Your task to perform on an android device: toggle translation in the chrome app Image 0: 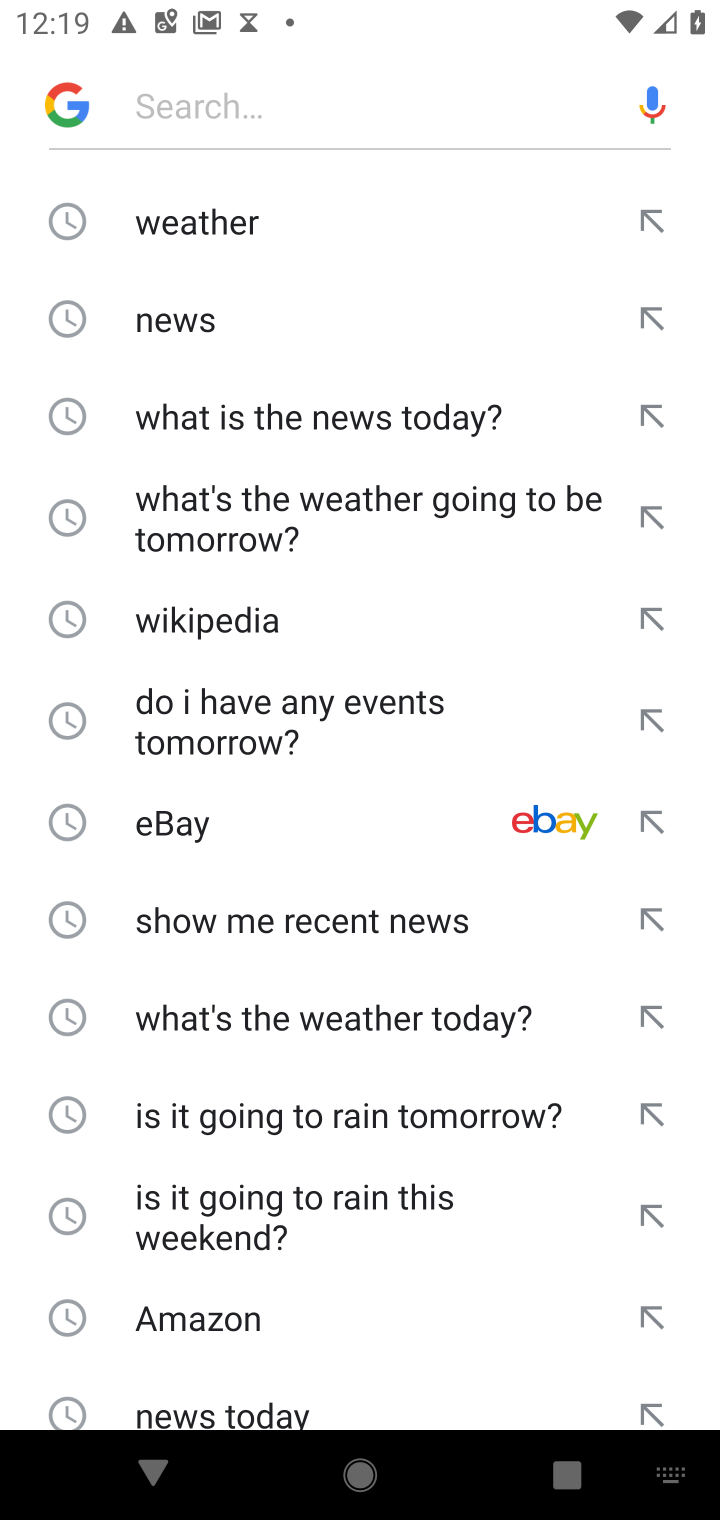
Step 0: press home button
Your task to perform on an android device: toggle translation in the chrome app Image 1: 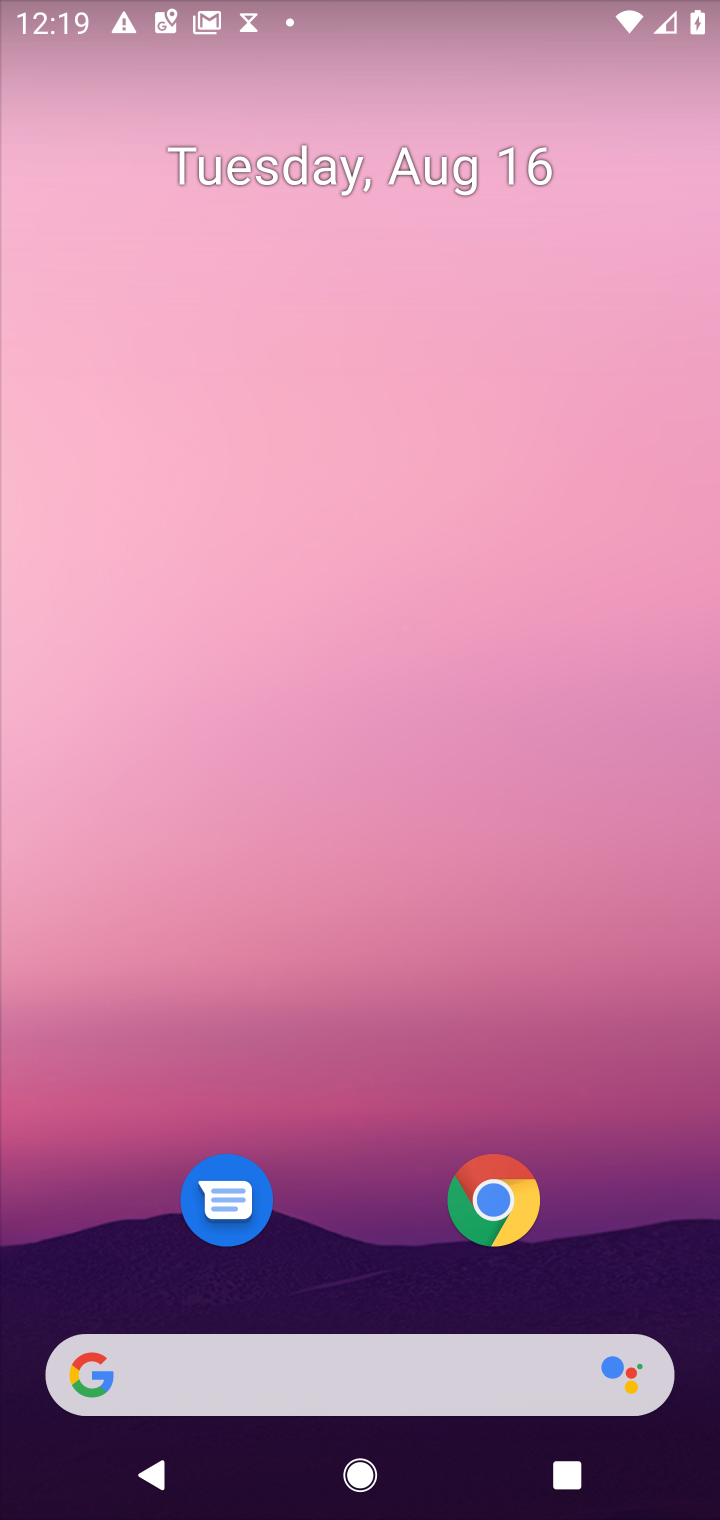
Step 1: click (476, 1223)
Your task to perform on an android device: toggle translation in the chrome app Image 2: 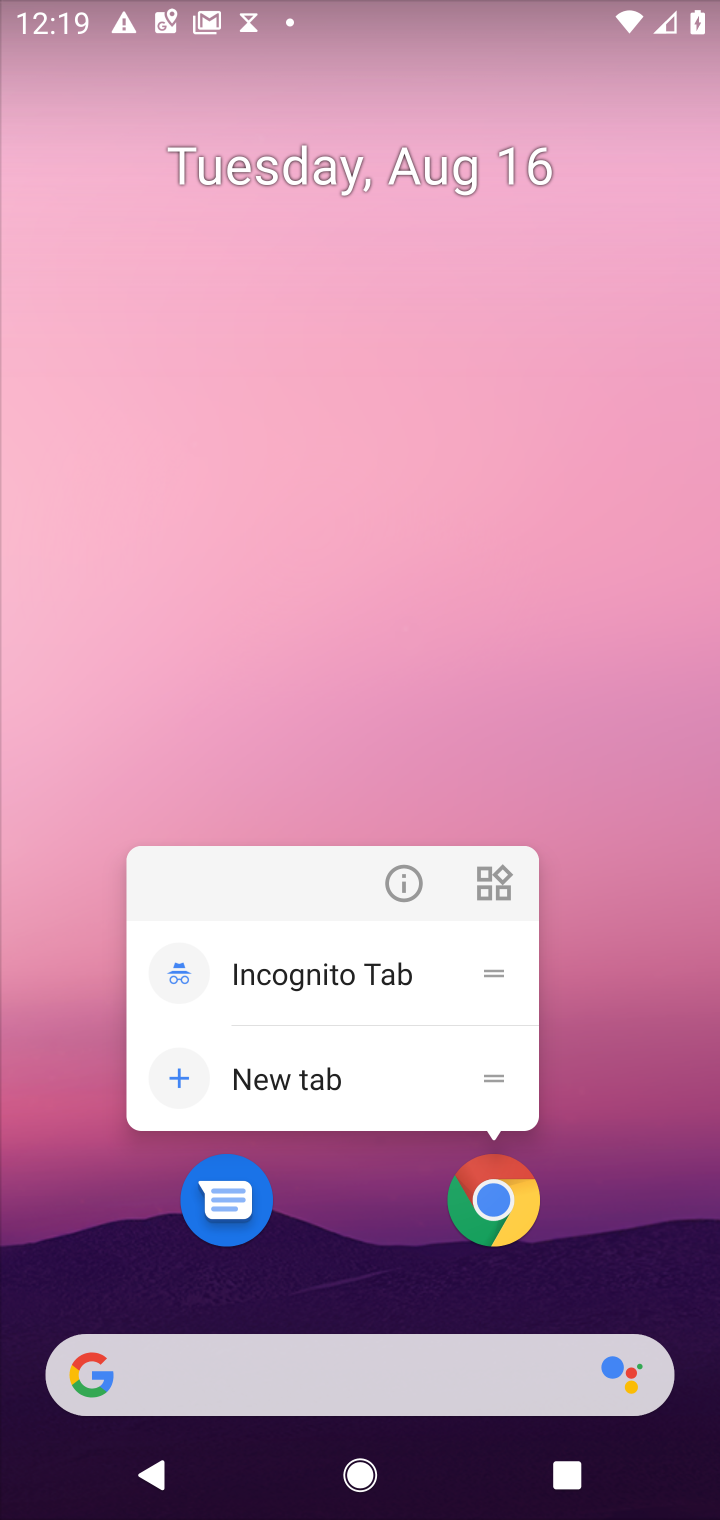
Step 2: click (528, 1184)
Your task to perform on an android device: toggle translation in the chrome app Image 3: 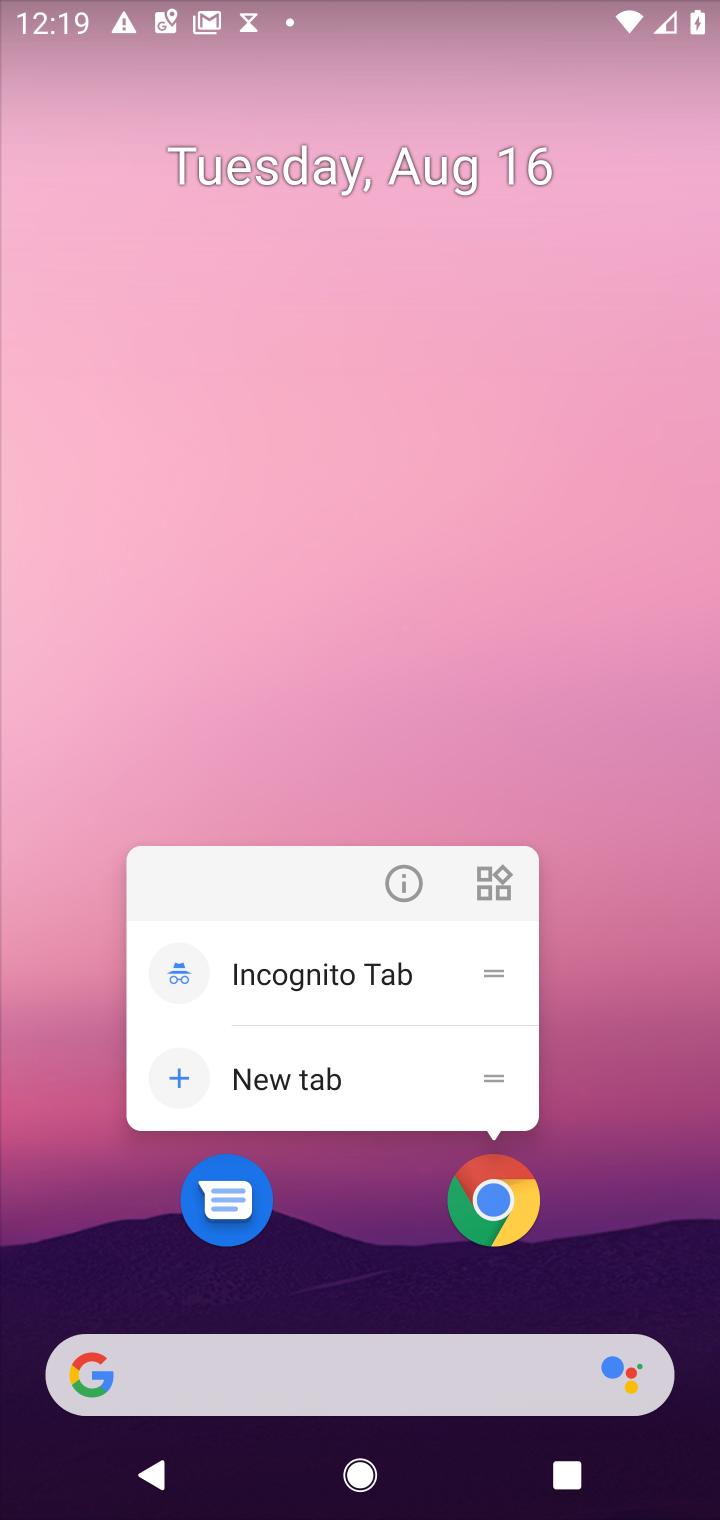
Step 3: click (483, 1207)
Your task to perform on an android device: toggle translation in the chrome app Image 4: 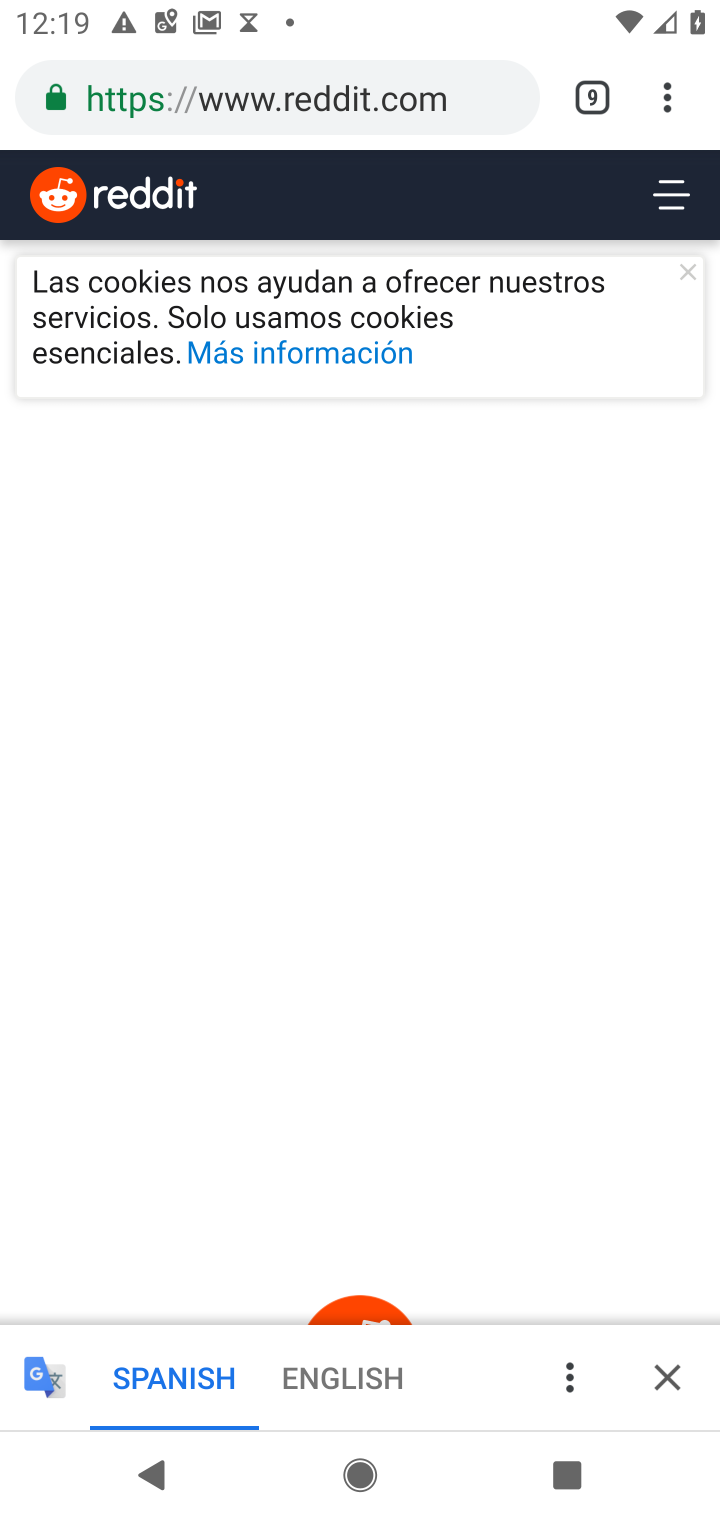
Step 4: click (652, 77)
Your task to perform on an android device: toggle translation in the chrome app Image 5: 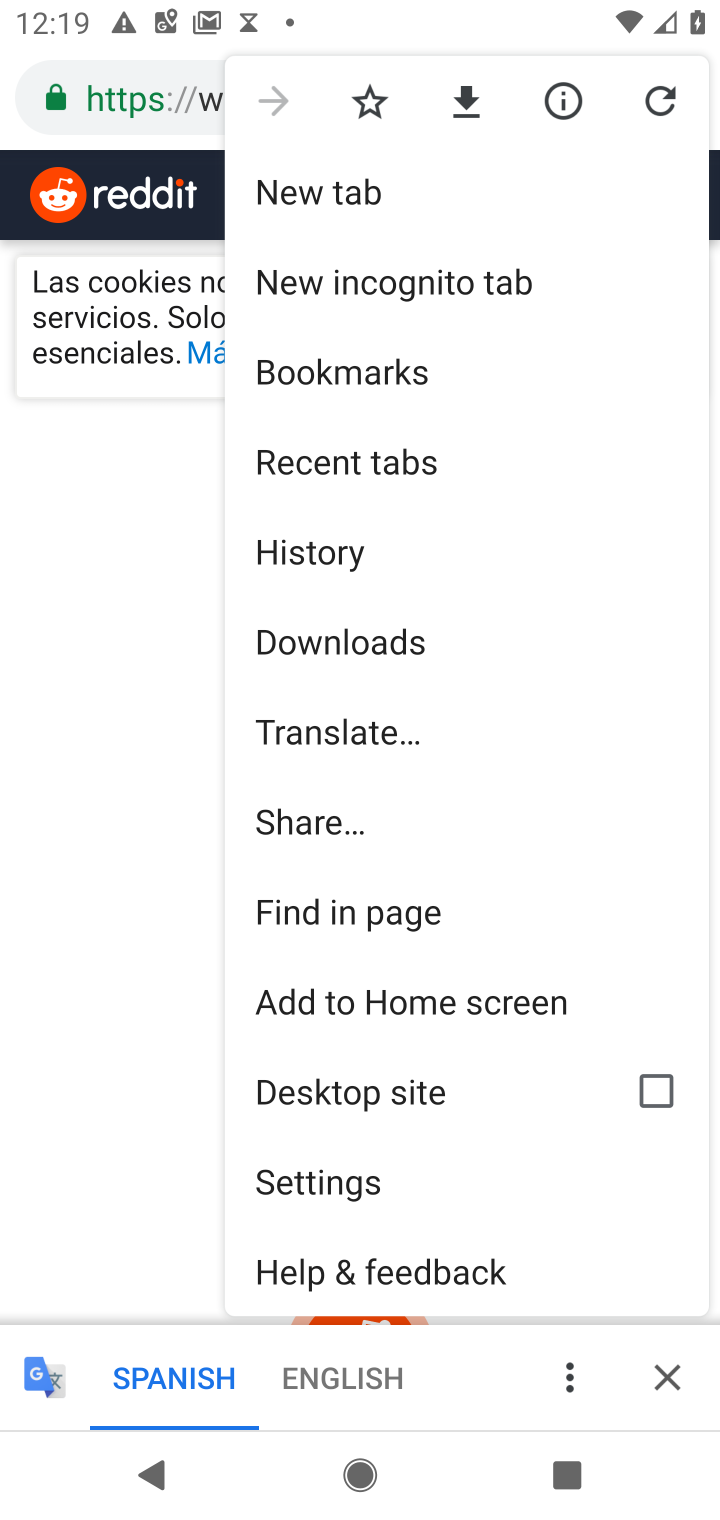
Step 5: click (364, 1174)
Your task to perform on an android device: toggle translation in the chrome app Image 6: 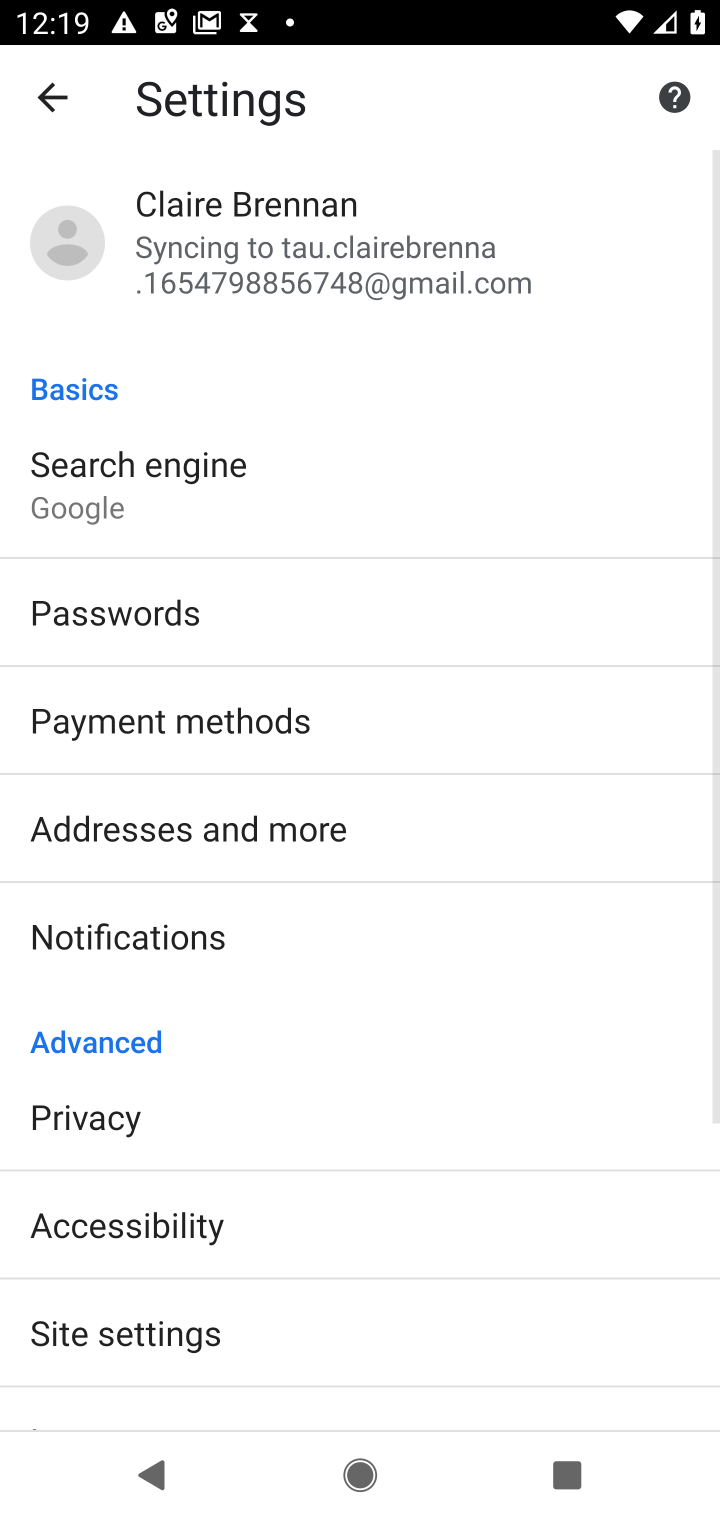
Step 6: drag from (296, 1204) to (304, 527)
Your task to perform on an android device: toggle translation in the chrome app Image 7: 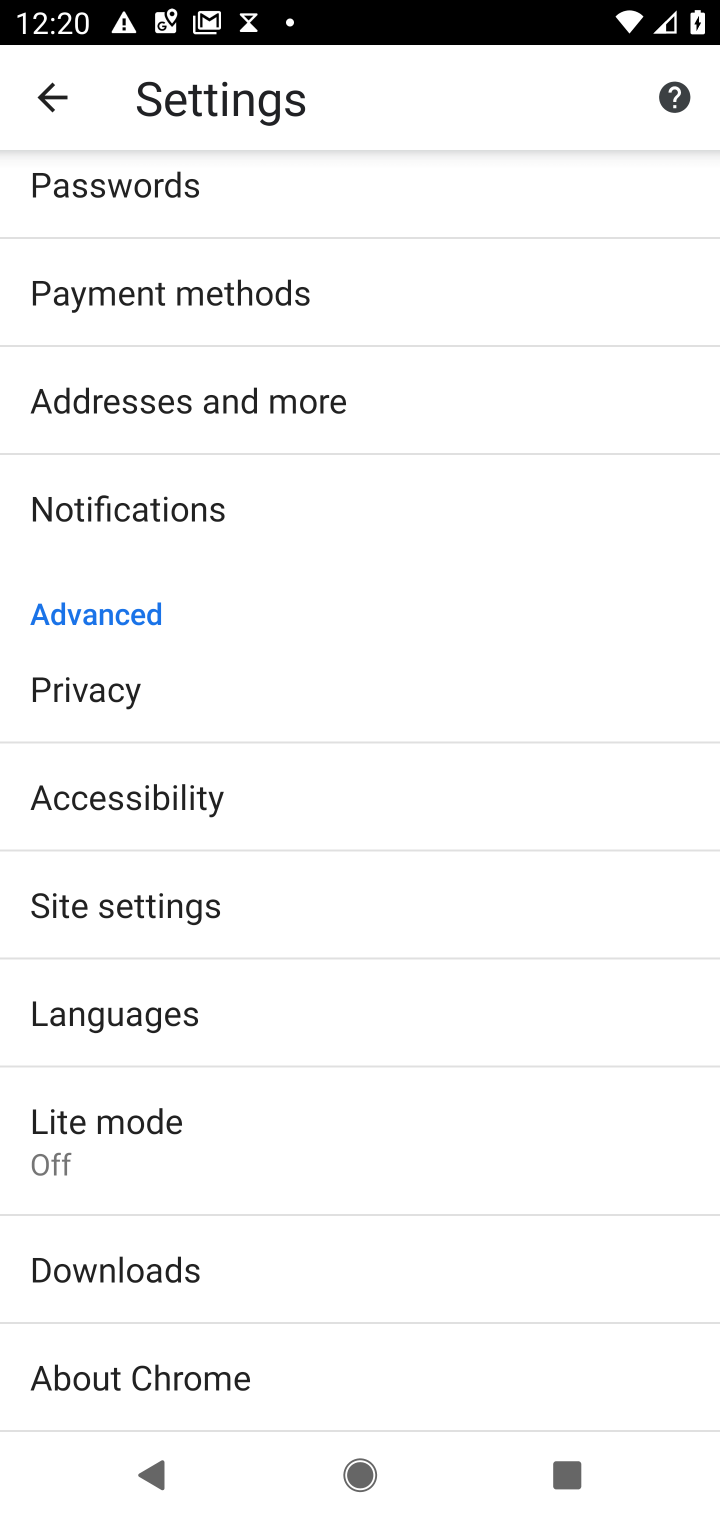
Step 7: click (214, 994)
Your task to perform on an android device: toggle translation in the chrome app Image 8: 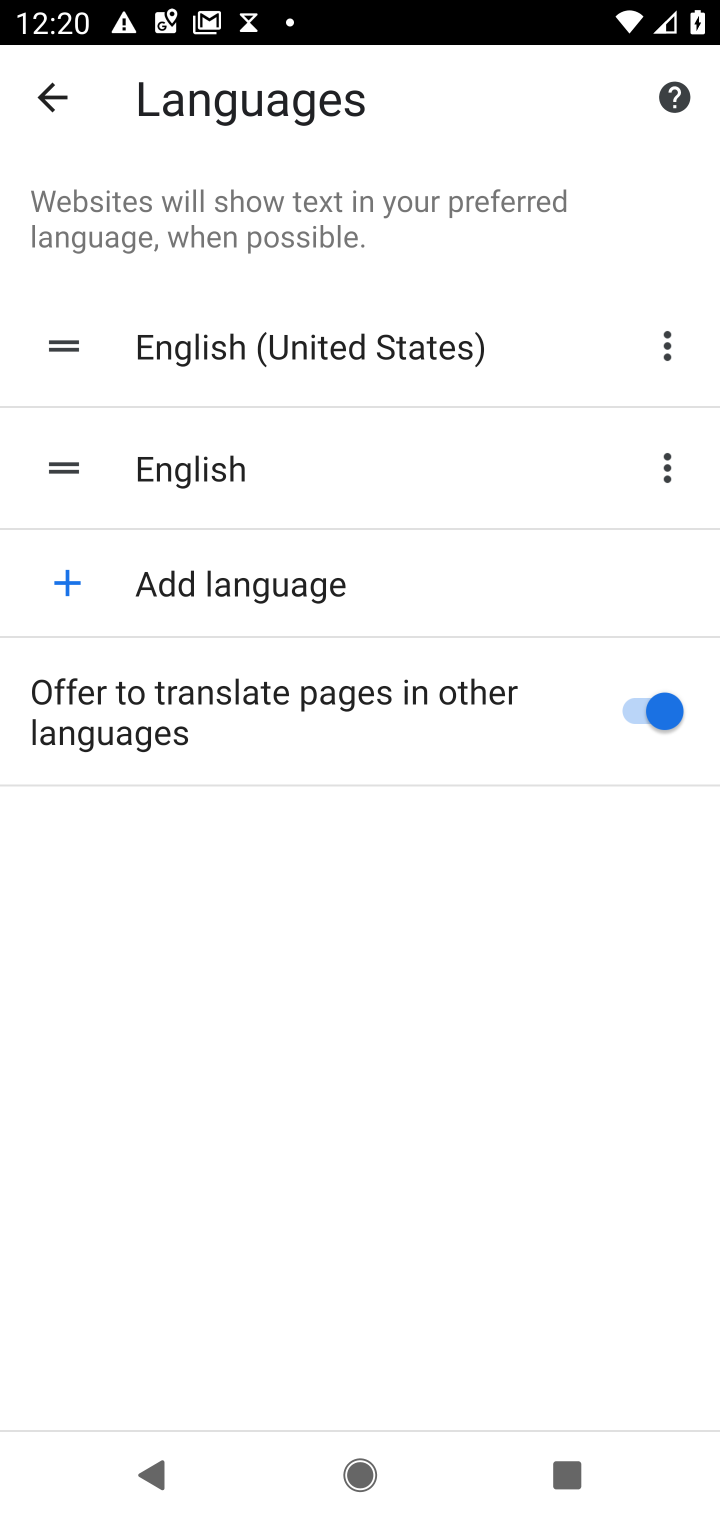
Step 8: click (625, 705)
Your task to perform on an android device: toggle translation in the chrome app Image 9: 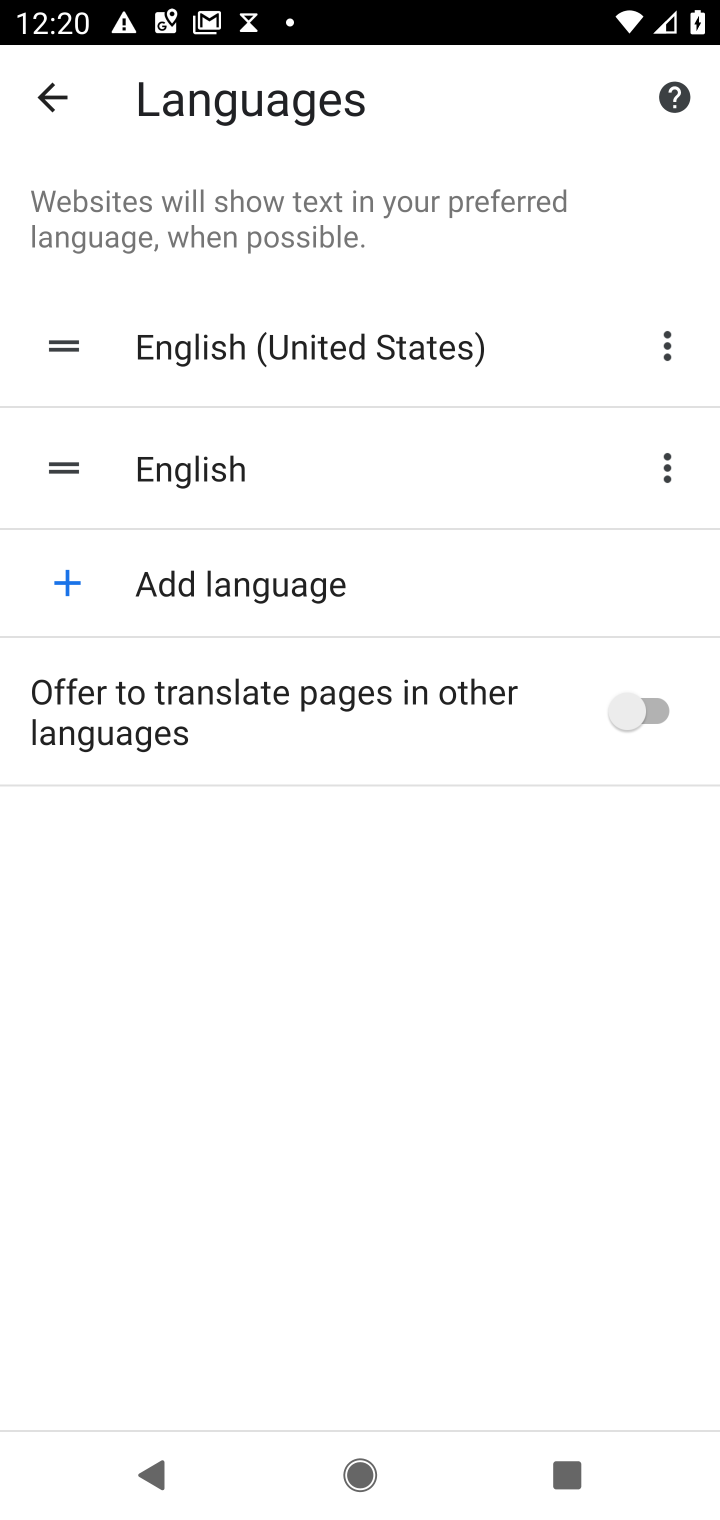
Step 9: task complete